Your task to perform on an android device: create a new album in the google photos Image 0: 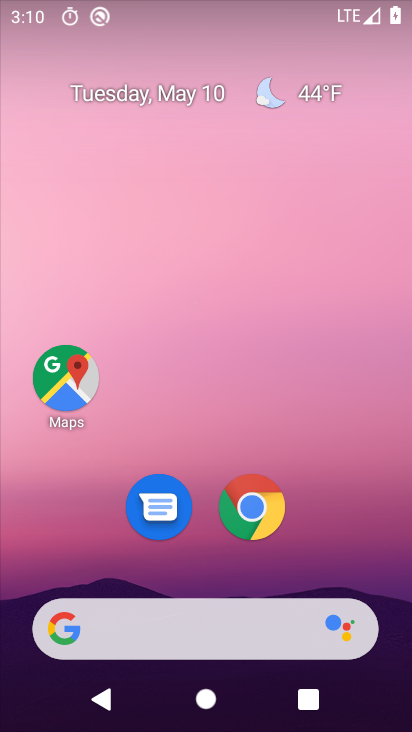
Step 0: drag from (201, 592) to (255, 203)
Your task to perform on an android device: create a new album in the google photos Image 1: 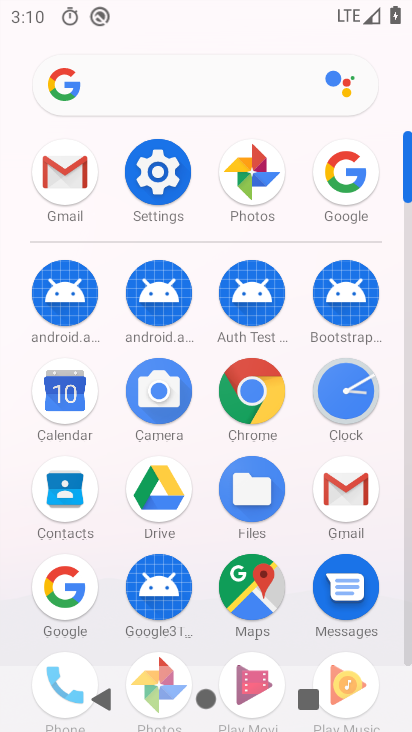
Step 1: click (261, 167)
Your task to perform on an android device: create a new album in the google photos Image 2: 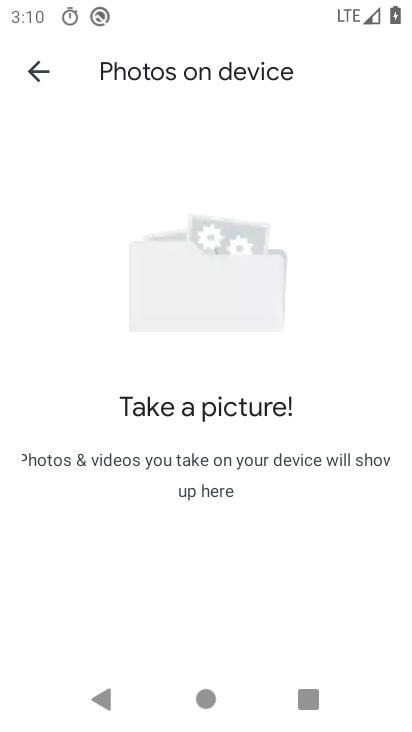
Step 2: click (31, 70)
Your task to perform on an android device: create a new album in the google photos Image 3: 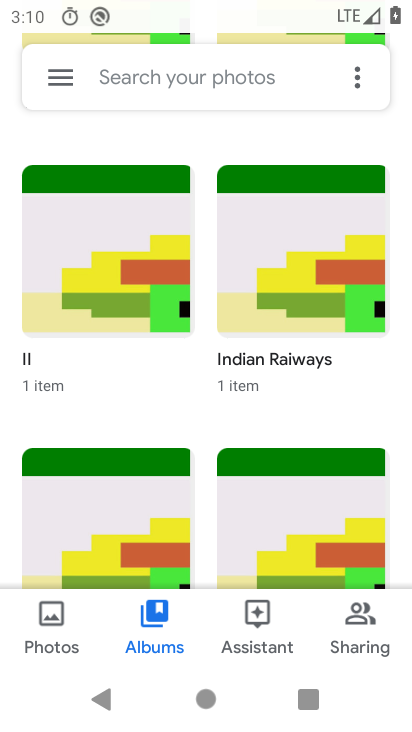
Step 3: drag from (173, 172) to (143, 503)
Your task to perform on an android device: create a new album in the google photos Image 4: 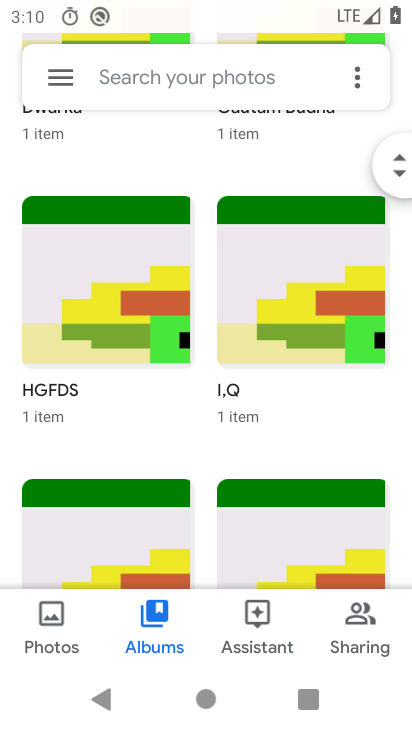
Step 4: drag from (170, 172) to (186, 570)
Your task to perform on an android device: create a new album in the google photos Image 5: 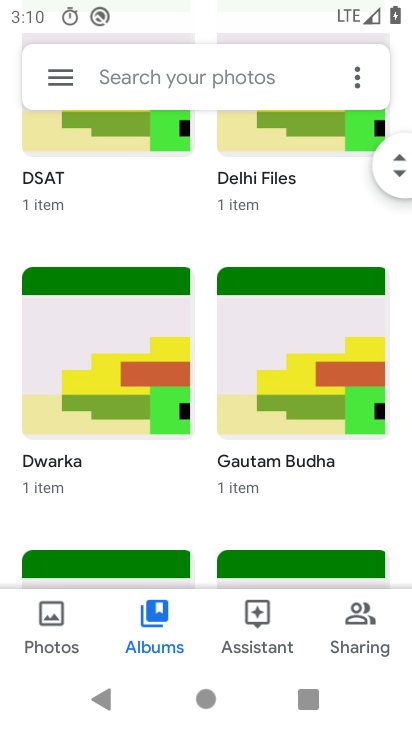
Step 5: drag from (206, 138) to (180, 539)
Your task to perform on an android device: create a new album in the google photos Image 6: 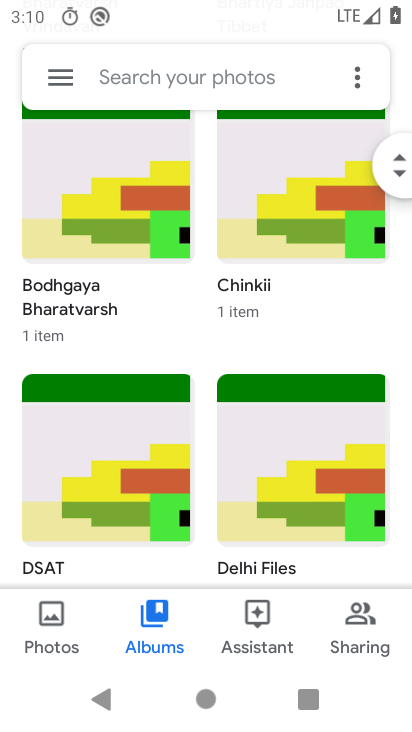
Step 6: drag from (181, 218) to (178, 541)
Your task to perform on an android device: create a new album in the google photos Image 7: 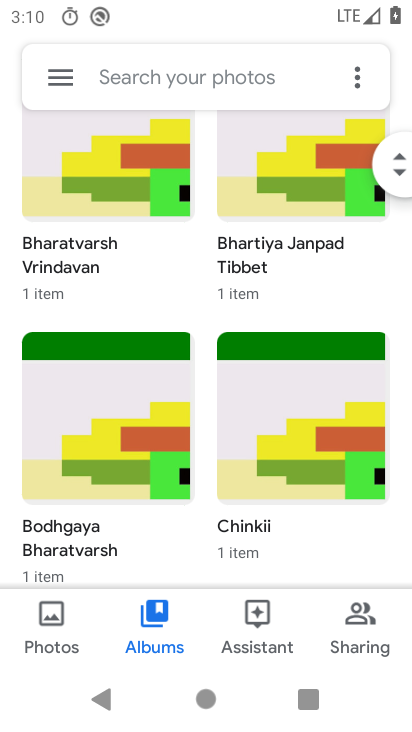
Step 7: drag from (178, 160) to (199, 511)
Your task to perform on an android device: create a new album in the google photos Image 8: 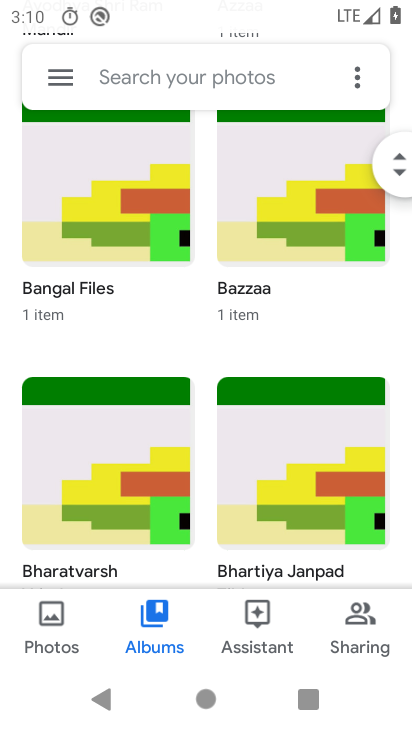
Step 8: drag from (162, 192) to (141, 527)
Your task to perform on an android device: create a new album in the google photos Image 9: 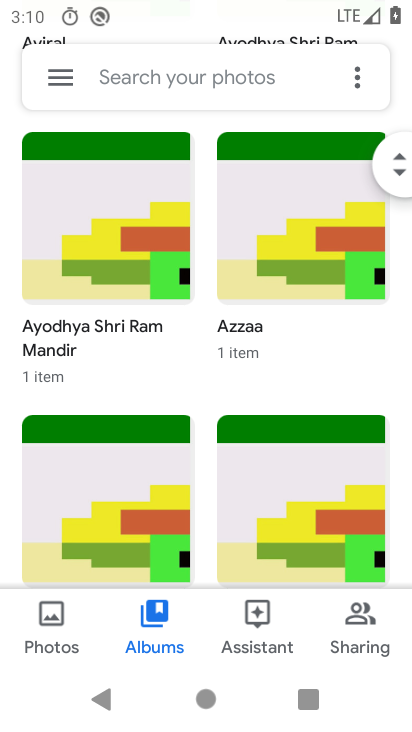
Step 9: drag from (190, 153) to (184, 581)
Your task to perform on an android device: create a new album in the google photos Image 10: 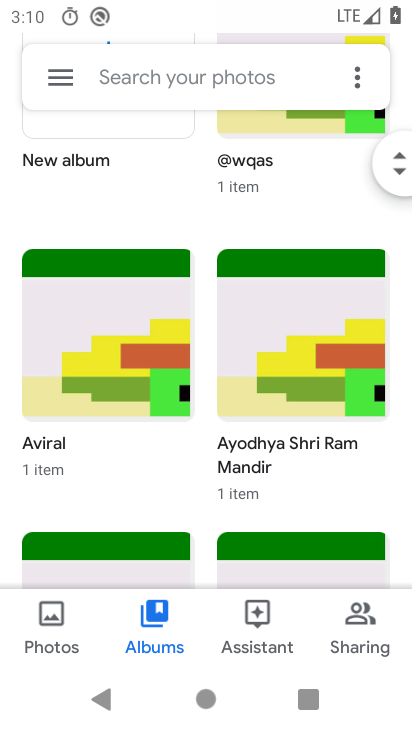
Step 10: drag from (204, 199) to (200, 608)
Your task to perform on an android device: create a new album in the google photos Image 11: 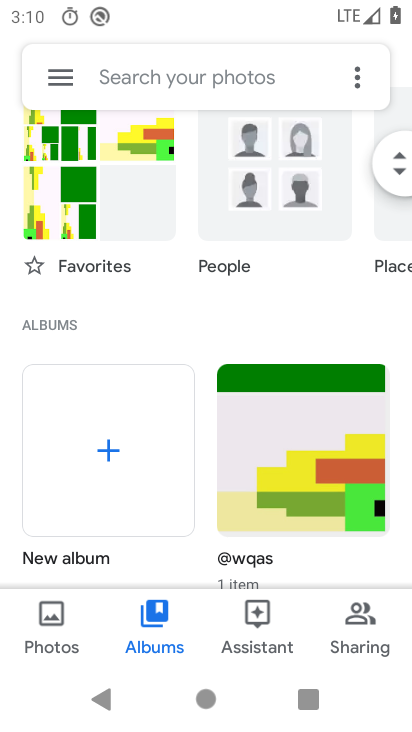
Step 11: drag from (389, 171) to (388, 93)
Your task to perform on an android device: create a new album in the google photos Image 12: 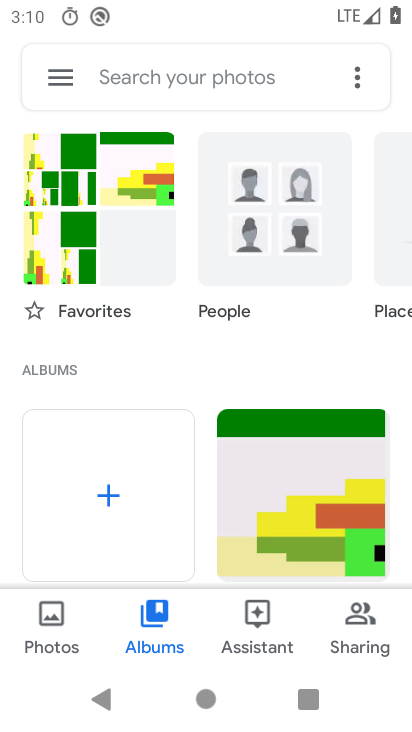
Step 12: drag from (139, 219) to (114, 527)
Your task to perform on an android device: create a new album in the google photos Image 13: 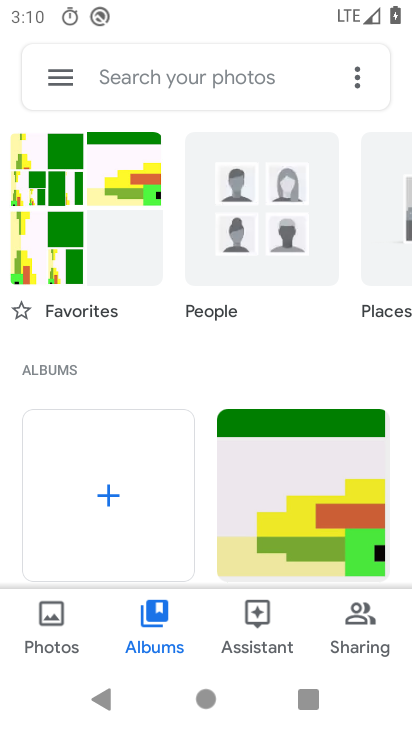
Step 13: click (120, 506)
Your task to perform on an android device: create a new album in the google photos Image 14: 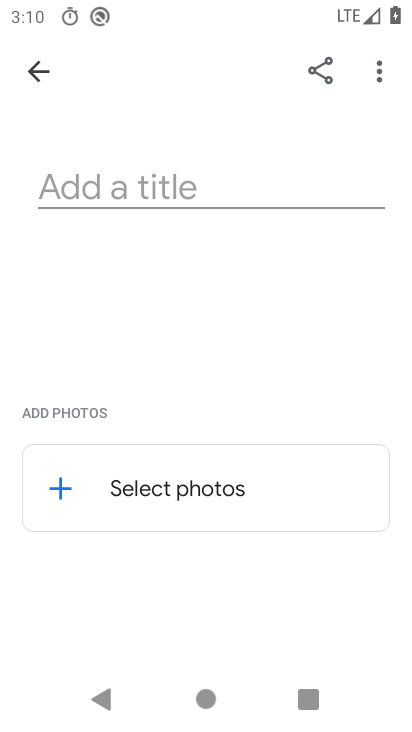
Step 14: click (178, 178)
Your task to perform on an android device: create a new album in the google photos Image 15: 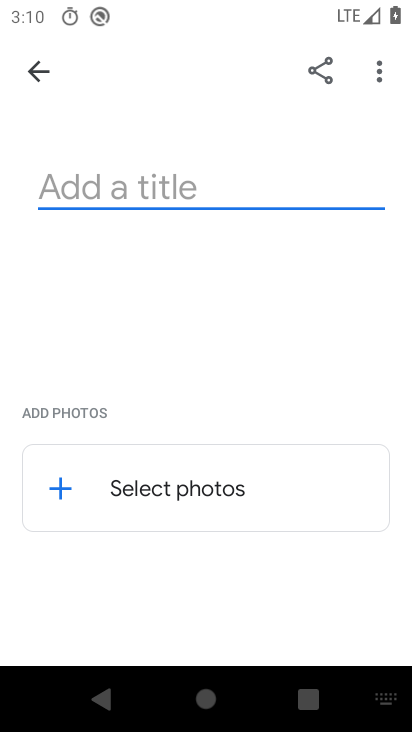
Step 15: type "Album21"
Your task to perform on an android device: create a new album in the google photos Image 16: 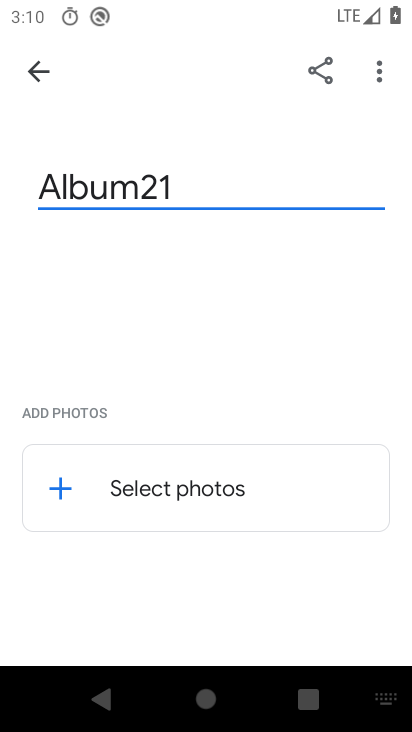
Step 16: click (119, 490)
Your task to perform on an android device: create a new album in the google photos Image 17: 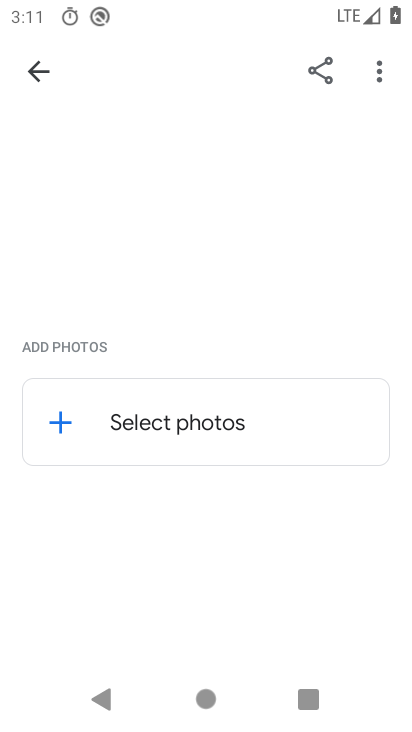
Step 17: click (60, 419)
Your task to perform on an android device: create a new album in the google photos Image 18: 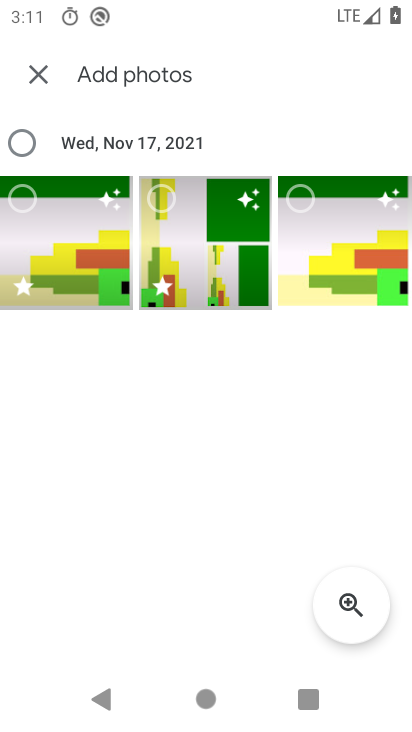
Step 18: click (15, 135)
Your task to perform on an android device: create a new album in the google photos Image 19: 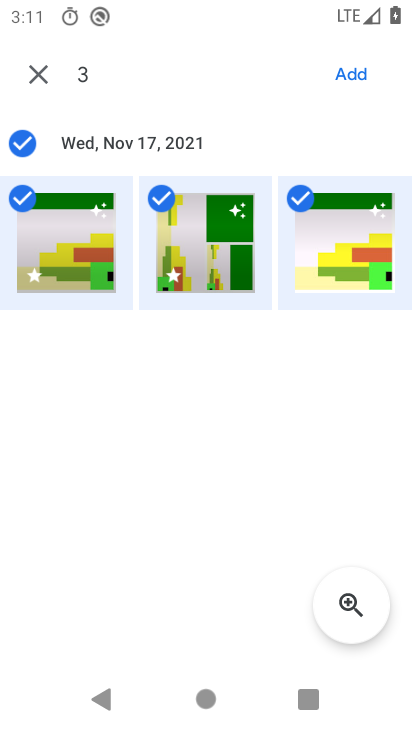
Step 19: click (366, 74)
Your task to perform on an android device: create a new album in the google photos Image 20: 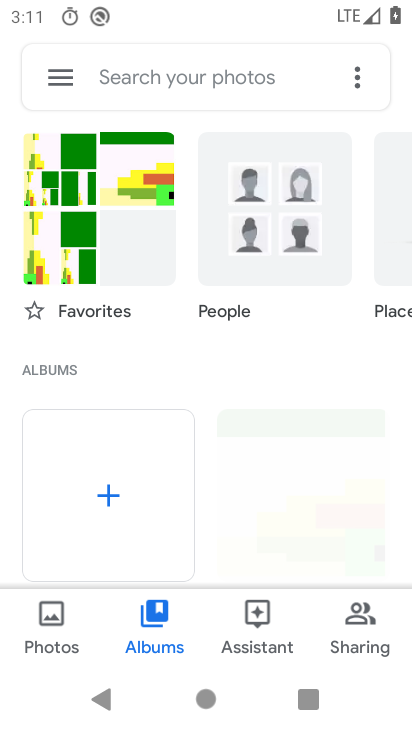
Step 20: task complete